Your task to perform on an android device: Open Amazon Image 0: 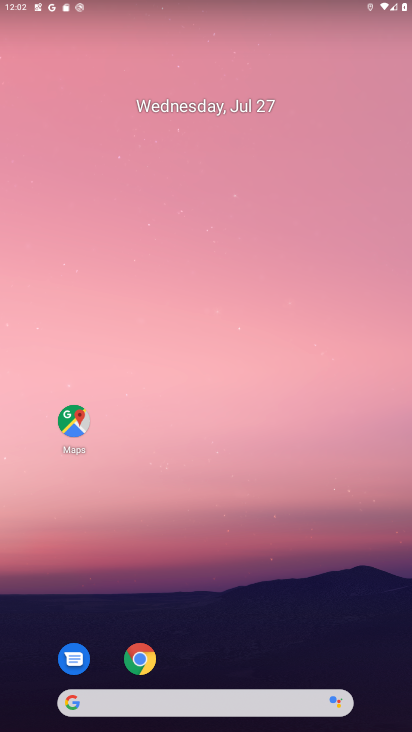
Step 0: drag from (170, 678) to (193, 45)
Your task to perform on an android device: Open Amazon Image 1: 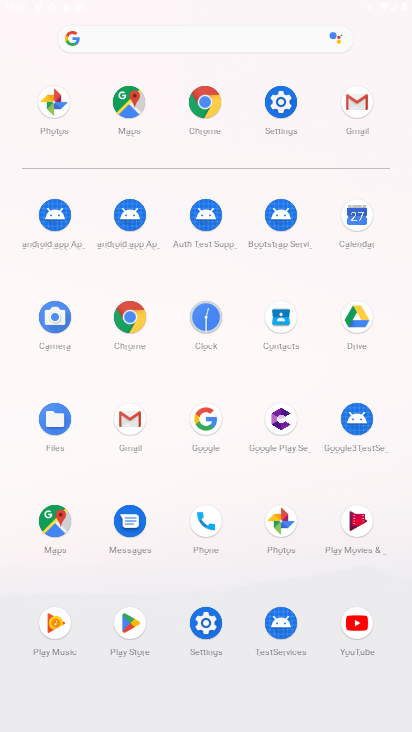
Step 1: click (127, 311)
Your task to perform on an android device: Open Amazon Image 2: 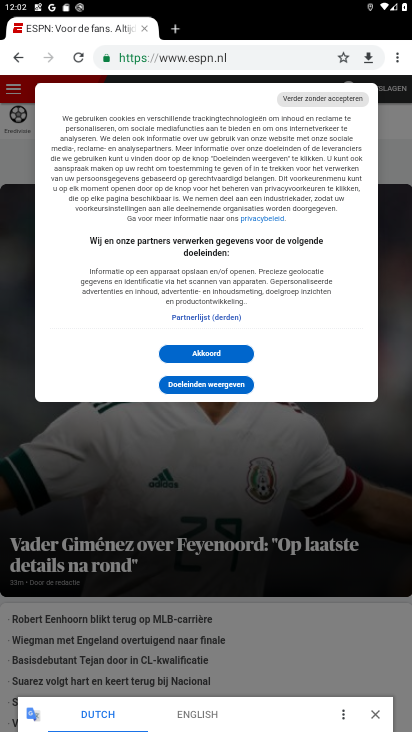
Step 2: click (160, 59)
Your task to perform on an android device: Open Amazon Image 3: 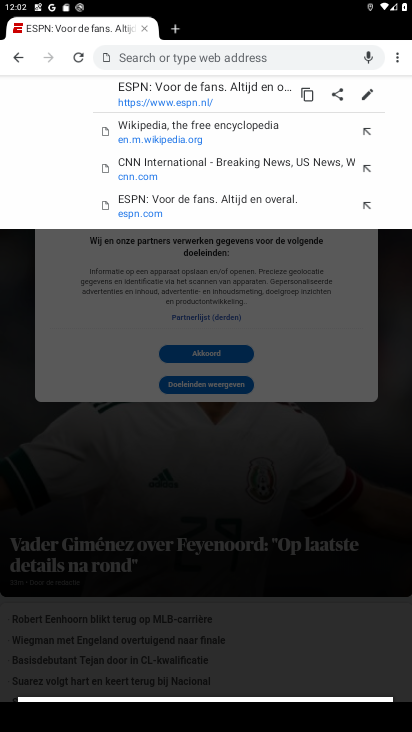
Step 3: type "amazon"
Your task to perform on an android device: Open Amazon Image 4: 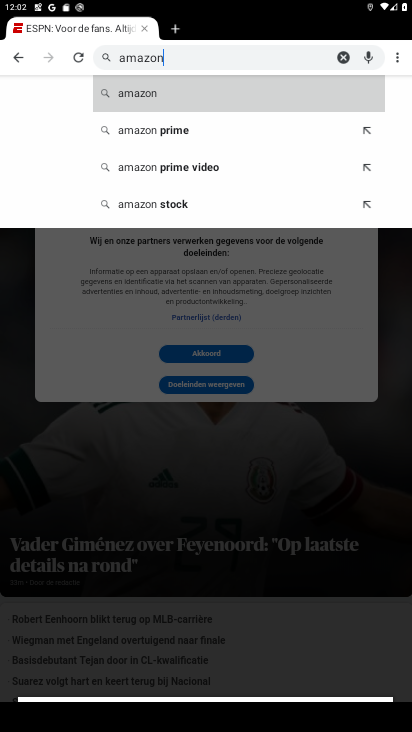
Step 4: click (142, 89)
Your task to perform on an android device: Open Amazon Image 5: 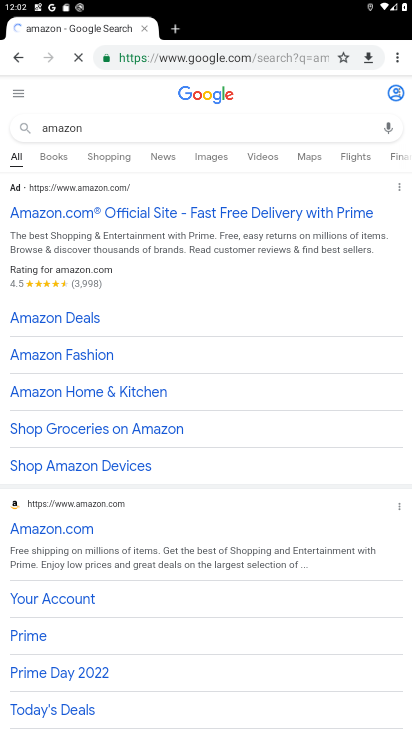
Step 5: task complete